Your task to perform on an android device: check android version Image 0: 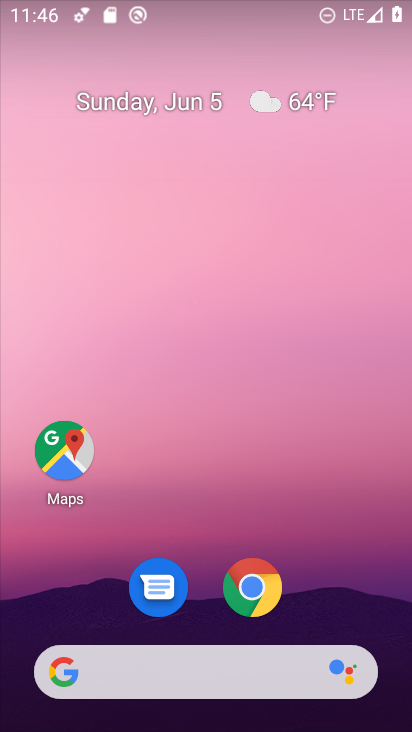
Step 0: drag from (204, 620) to (279, 22)
Your task to perform on an android device: check android version Image 1: 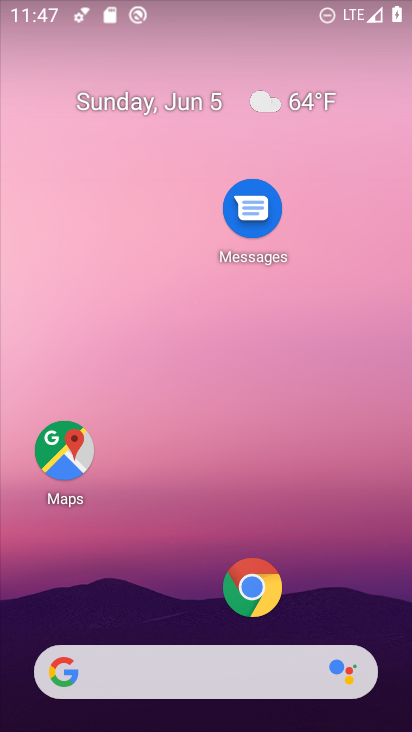
Step 1: drag from (178, 604) to (203, 127)
Your task to perform on an android device: check android version Image 2: 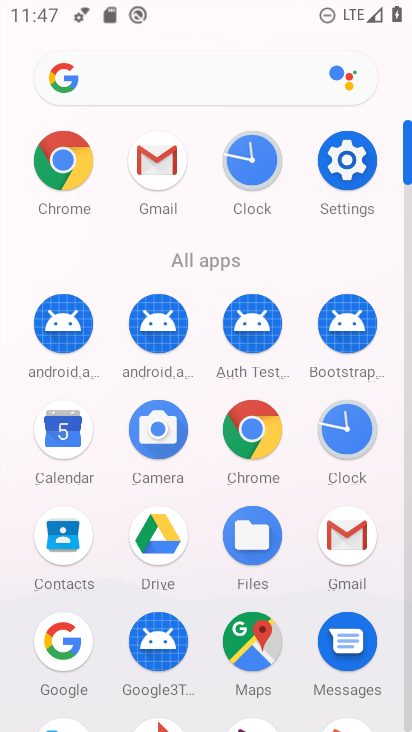
Step 2: click (341, 165)
Your task to perform on an android device: check android version Image 3: 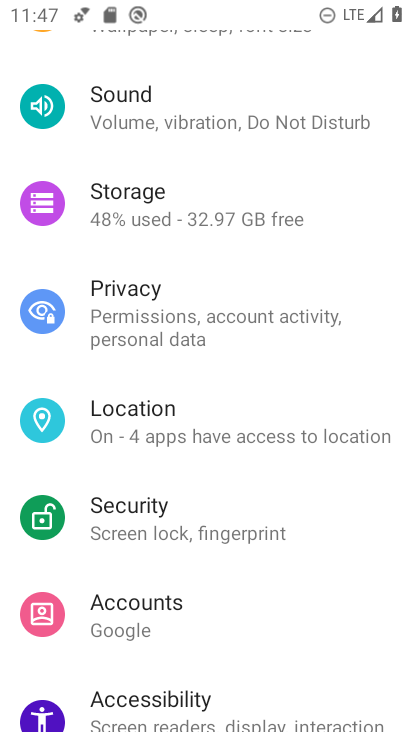
Step 3: task complete